Your task to perform on an android device: What is the recent news? Image 0: 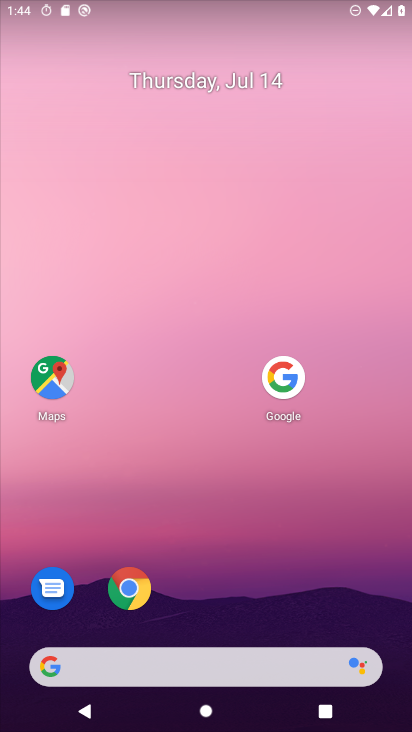
Step 0: click (128, 661)
Your task to perform on an android device: What is the recent news? Image 1: 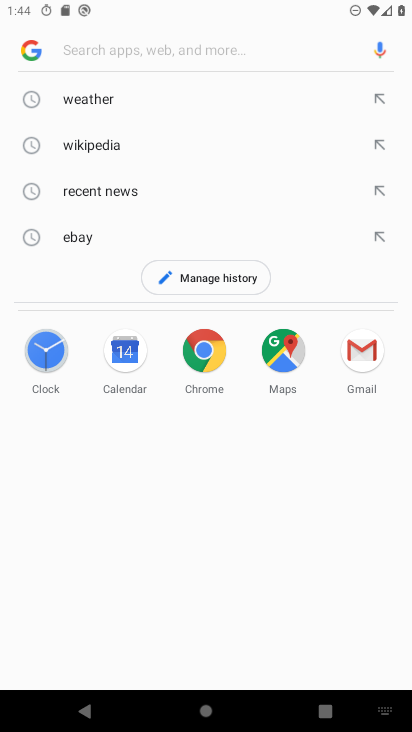
Step 1: click (130, 189)
Your task to perform on an android device: What is the recent news? Image 2: 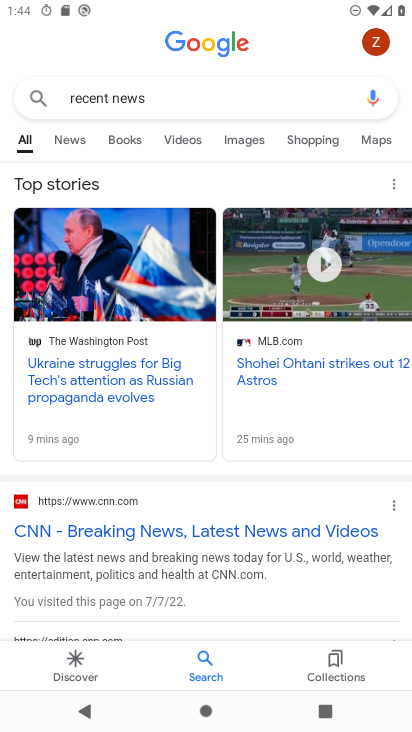
Step 2: click (71, 142)
Your task to perform on an android device: What is the recent news? Image 3: 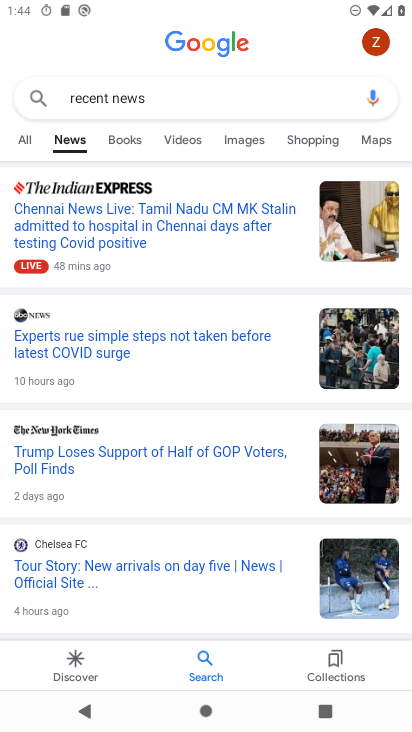
Step 3: task complete